Your task to perform on an android device: delete location history Image 0: 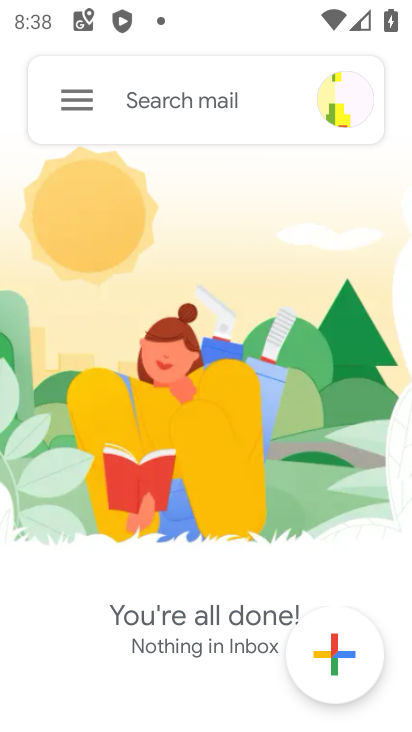
Step 0: press home button
Your task to perform on an android device: delete location history Image 1: 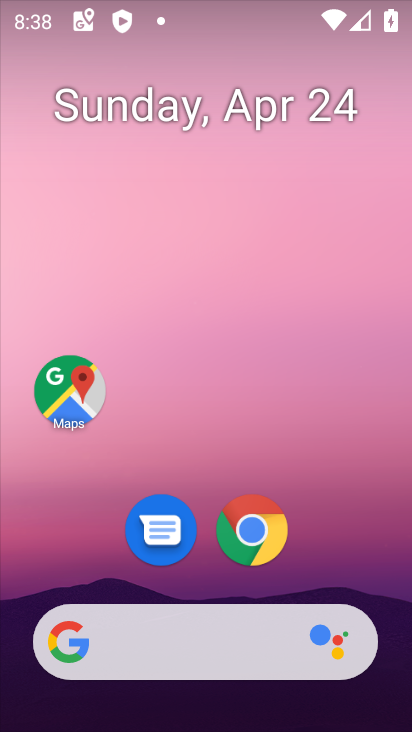
Step 1: click (84, 399)
Your task to perform on an android device: delete location history Image 2: 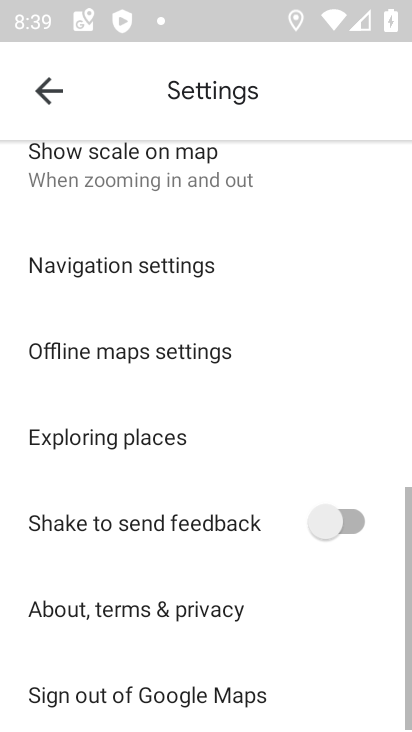
Step 2: click (49, 90)
Your task to perform on an android device: delete location history Image 3: 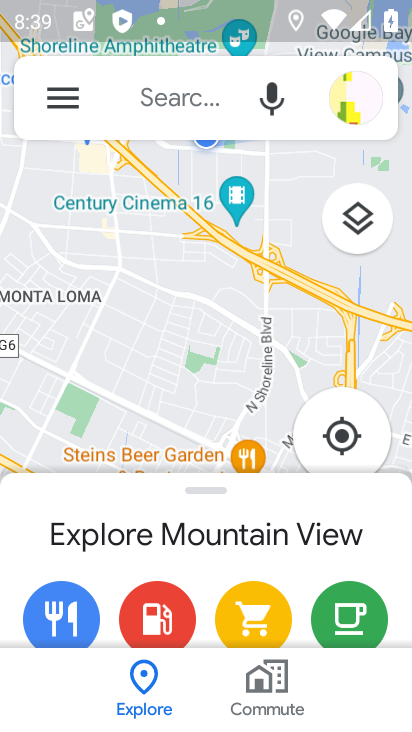
Step 3: click (49, 90)
Your task to perform on an android device: delete location history Image 4: 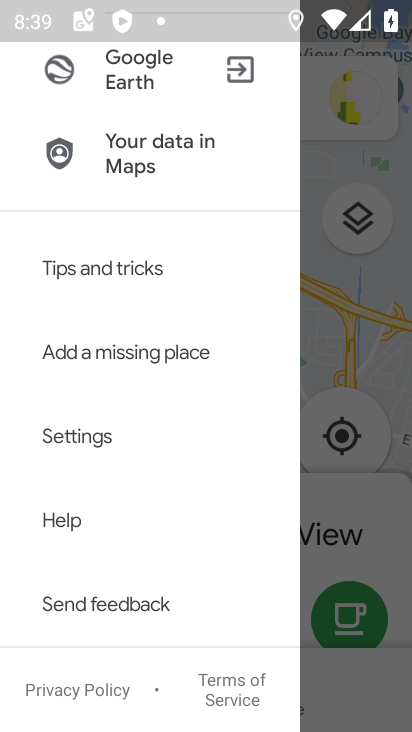
Step 4: click (137, 420)
Your task to perform on an android device: delete location history Image 5: 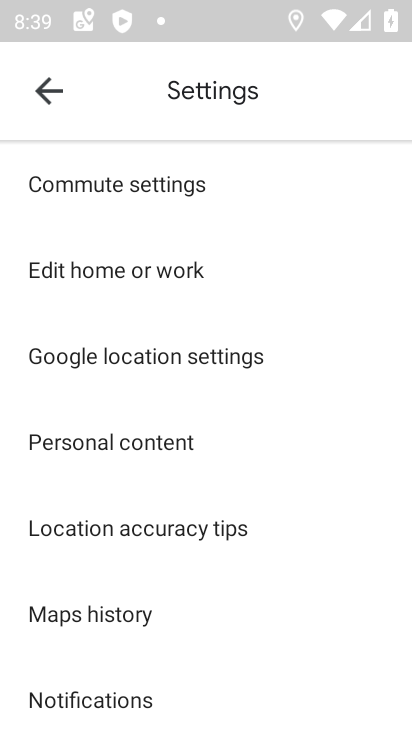
Step 5: drag from (160, 662) to (158, 262)
Your task to perform on an android device: delete location history Image 6: 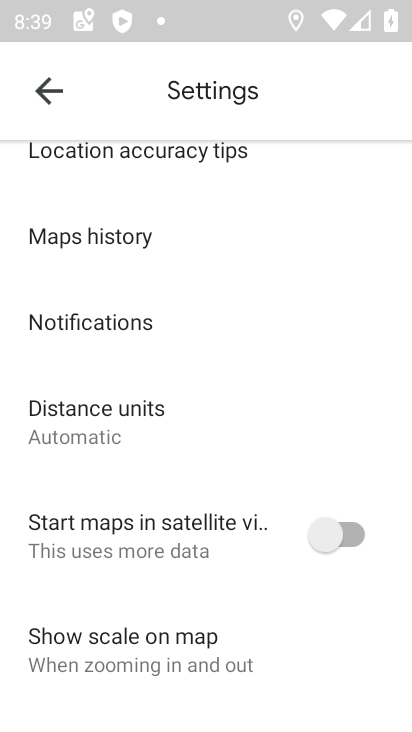
Step 6: click (62, 73)
Your task to perform on an android device: delete location history Image 7: 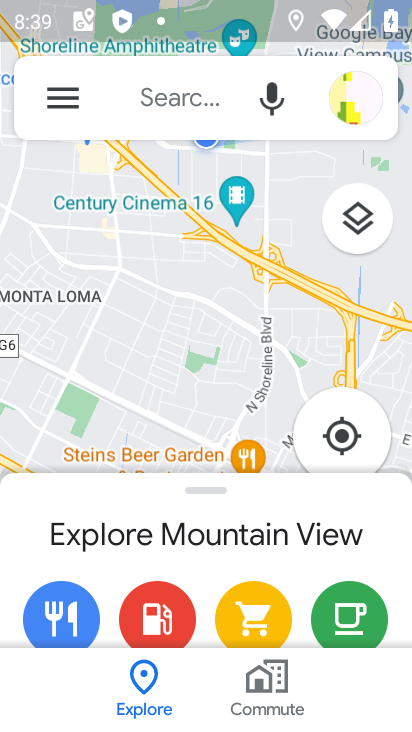
Step 7: click (62, 73)
Your task to perform on an android device: delete location history Image 8: 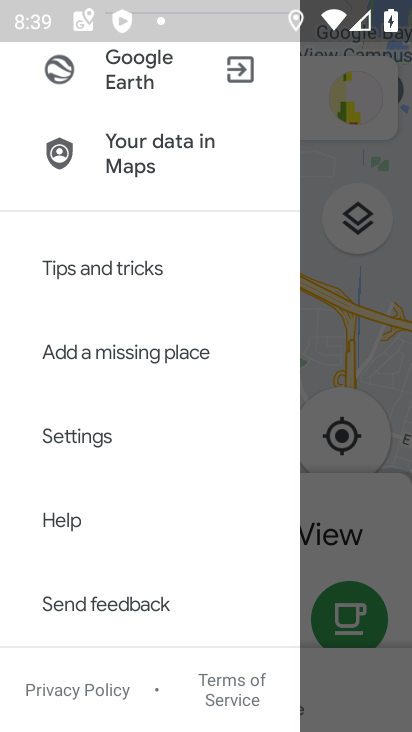
Step 8: drag from (136, 123) to (86, 544)
Your task to perform on an android device: delete location history Image 9: 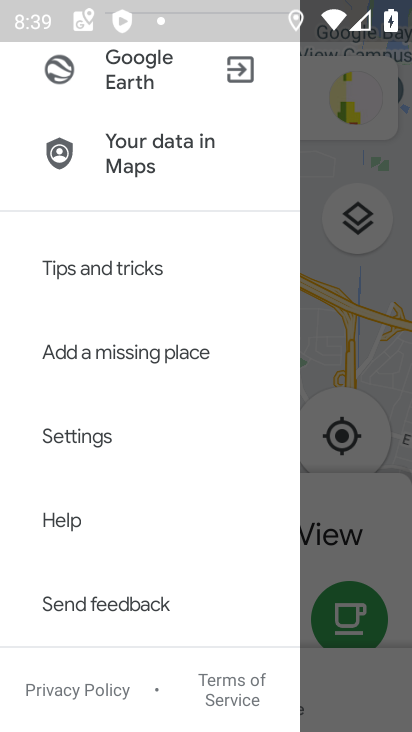
Step 9: drag from (193, 73) to (193, 655)
Your task to perform on an android device: delete location history Image 10: 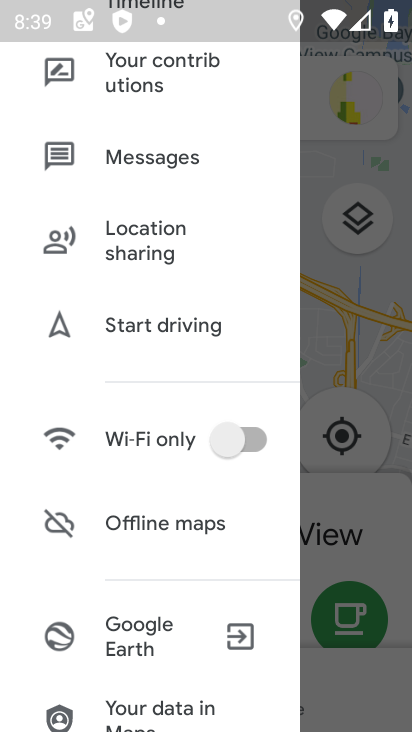
Step 10: drag from (127, 117) to (85, 644)
Your task to perform on an android device: delete location history Image 11: 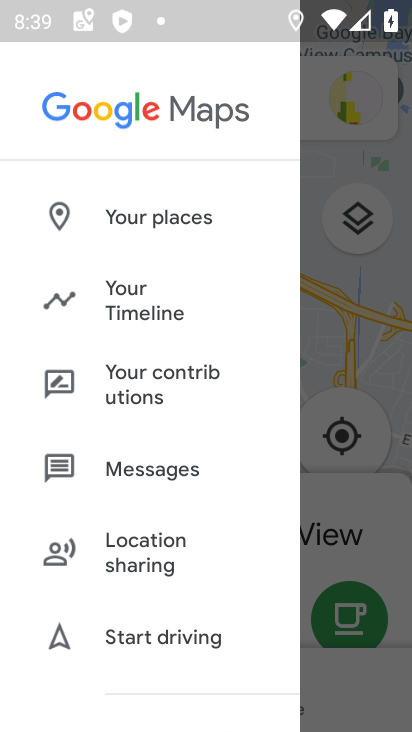
Step 11: drag from (144, 126) to (234, 541)
Your task to perform on an android device: delete location history Image 12: 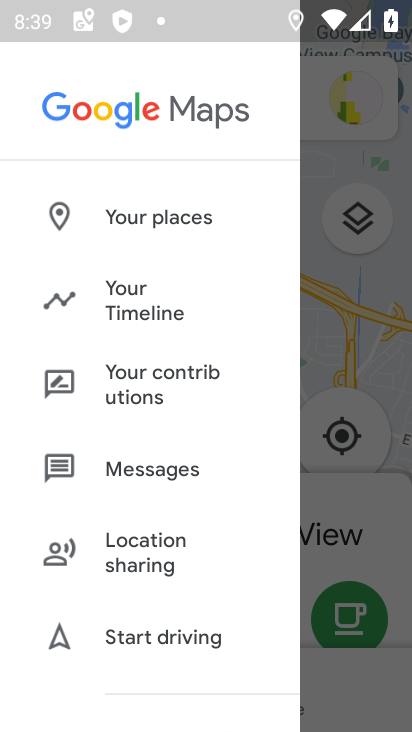
Step 12: click (163, 295)
Your task to perform on an android device: delete location history Image 13: 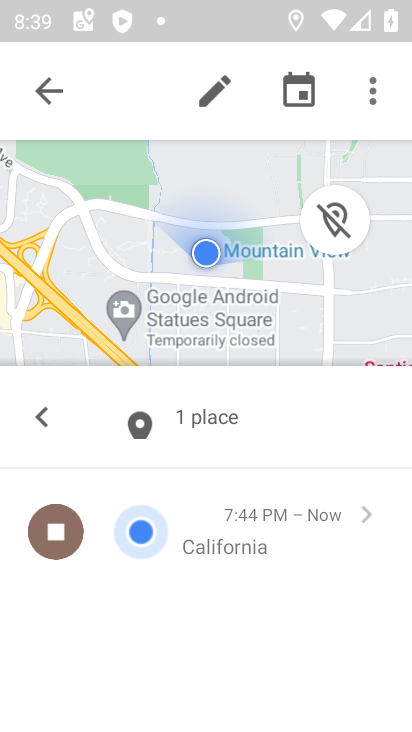
Step 13: click (387, 90)
Your task to perform on an android device: delete location history Image 14: 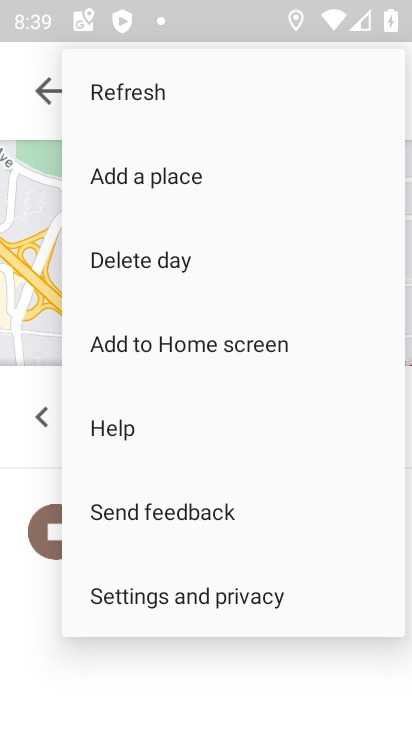
Step 14: click (164, 586)
Your task to perform on an android device: delete location history Image 15: 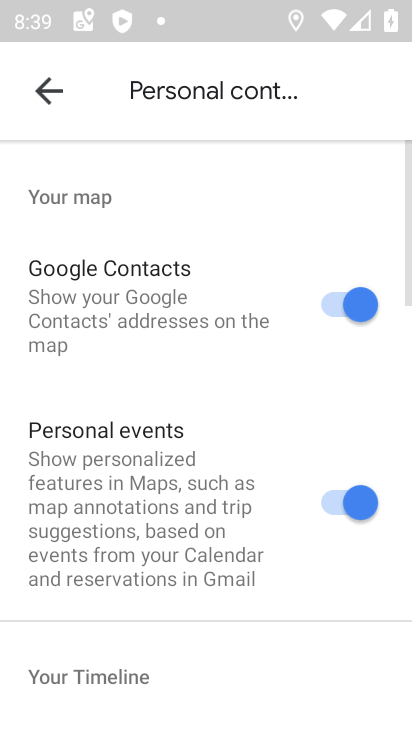
Step 15: drag from (164, 586) to (188, 271)
Your task to perform on an android device: delete location history Image 16: 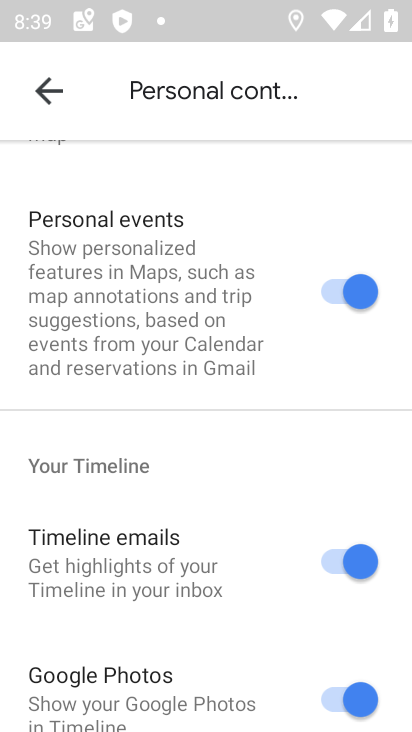
Step 16: drag from (90, 702) to (133, 240)
Your task to perform on an android device: delete location history Image 17: 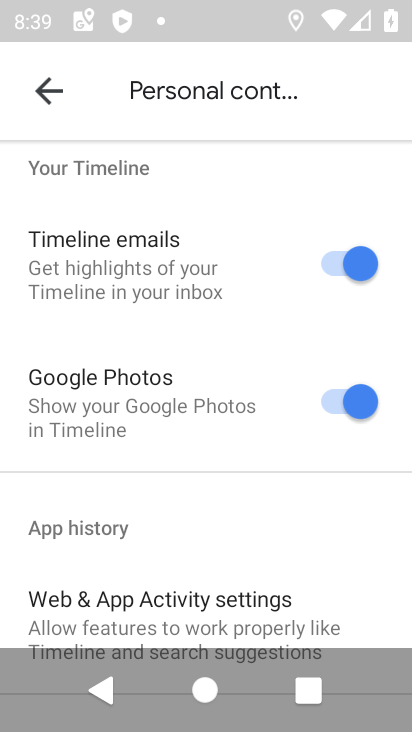
Step 17: drag from (149, 567) to (244, 176)
Your task to perform on an android device: delete location history Image 18: 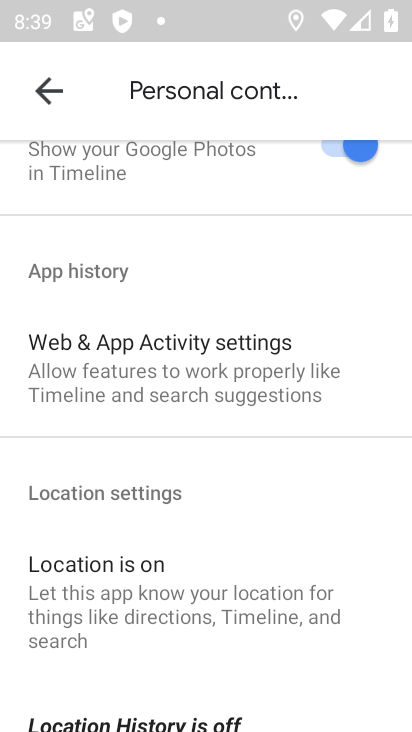
Step 18: drag from (143, 646) to (171, 219)
Your task to perform on an android device: delete location history Image 19: 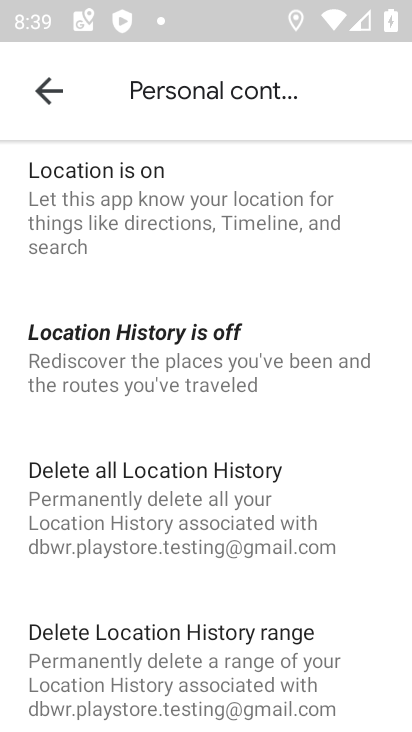
Step 19: click (176, 481)
Your task to perform on an android device: delete location history Image 20: 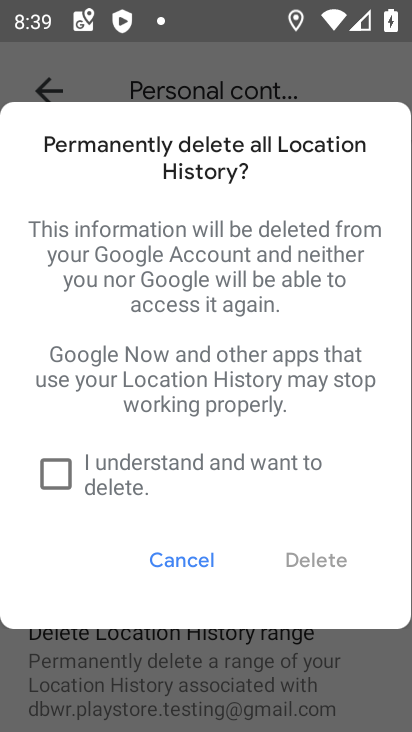
Step 20: click (58, 476)
Your task to perform on an android device: delete location history Image 21: 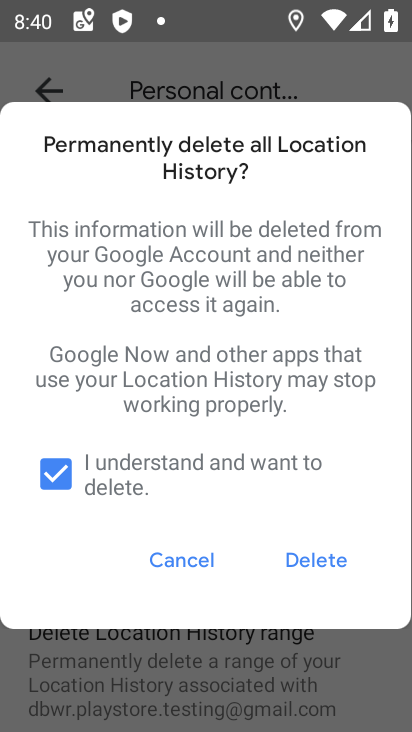
Step 21: click (330, 556)
Your task to perform on an android device: delete location history Image 22: 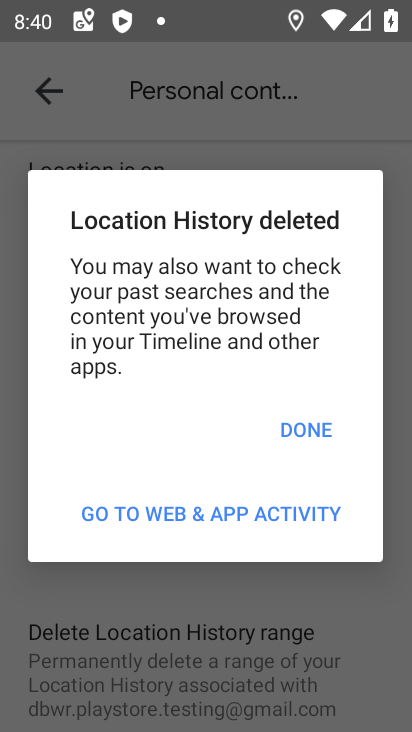
Step 22: click (341, 425)
Your task to perform on an android device: delete location history Image 23: 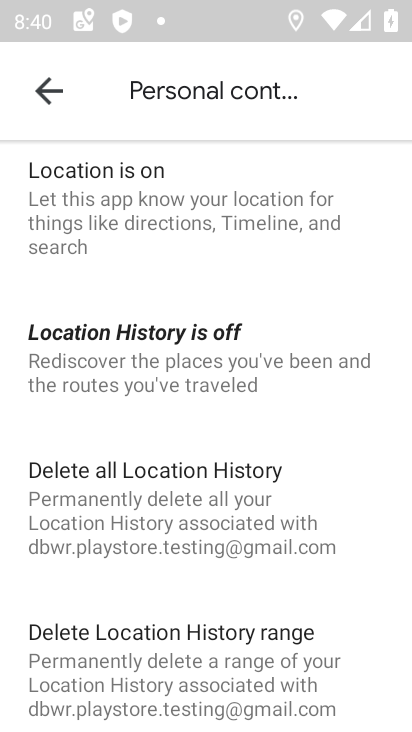
Step 23: task complete